Your task to perform on an android device: check the backup settings in the google photos Image 0: 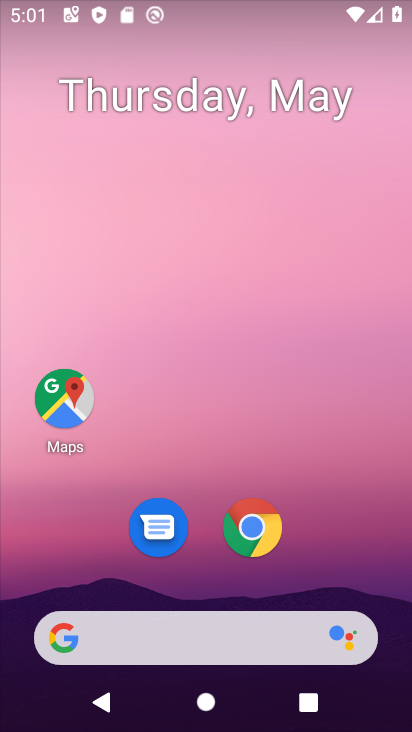
Step 0: drag from (383, 576) to (384, 179)
Your task to perform on an android device: check the backup settings in the google photos Image 1: 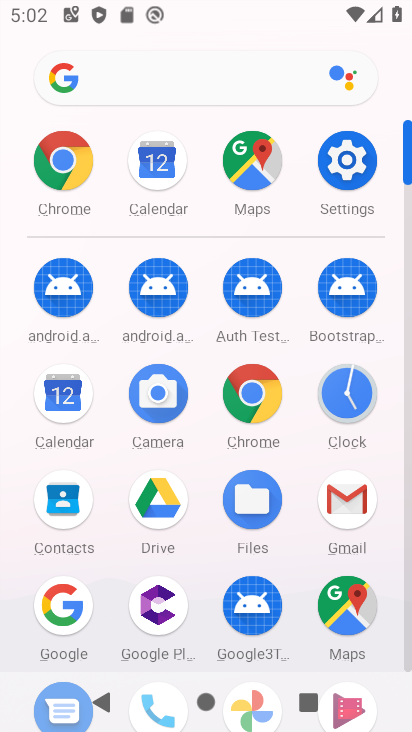
Step 1: drag from (401, 589) to (407, 439)
Your task to perform on an android device: check the backup settings in the google photos Image 2: 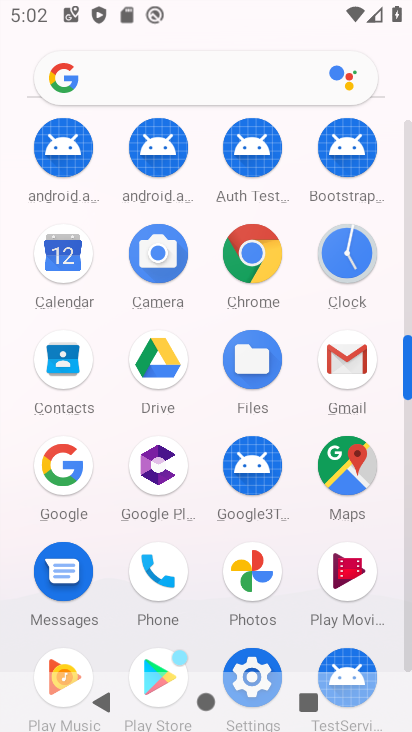
Step 2: click (248, 587)
Your task to perform on an android device: check the backup settings in the google photos Image 3: 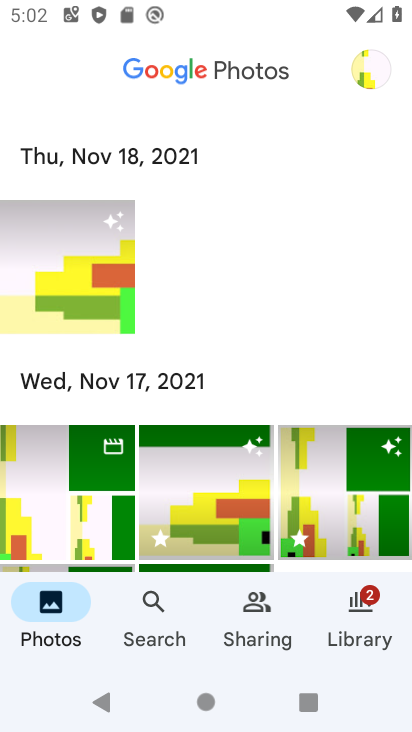
Step 3: click (367, 76)
Your task to perform on an android device: check the backup settings in the google photos Image 4: 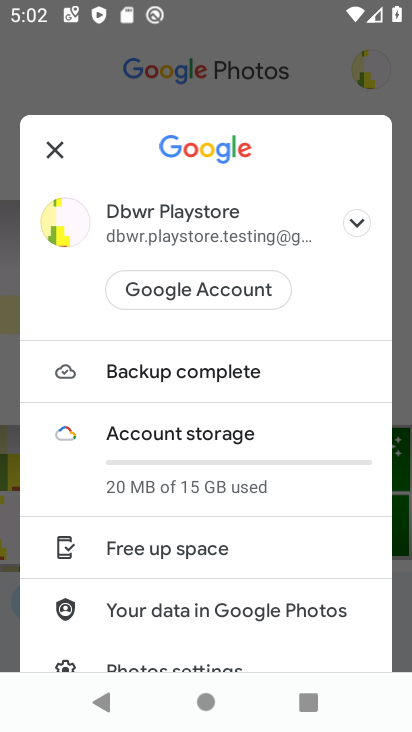
Step 4: click (212, 373)
Your task to perform on an android device: check the backup settings in the google photos Image 5: 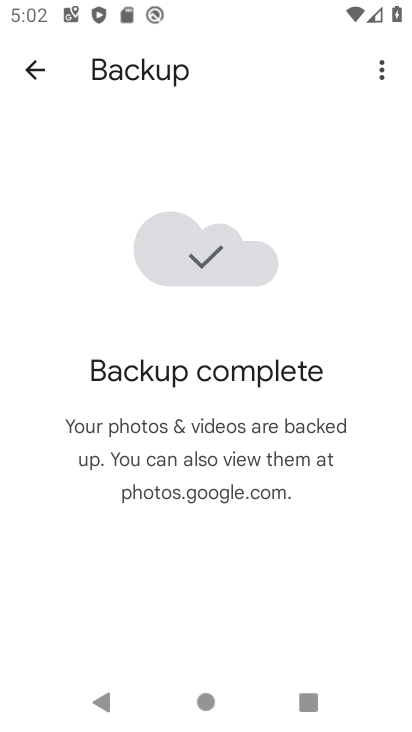
Step 5: task complete